Your task to perform on an android device: check data usage Image 0: 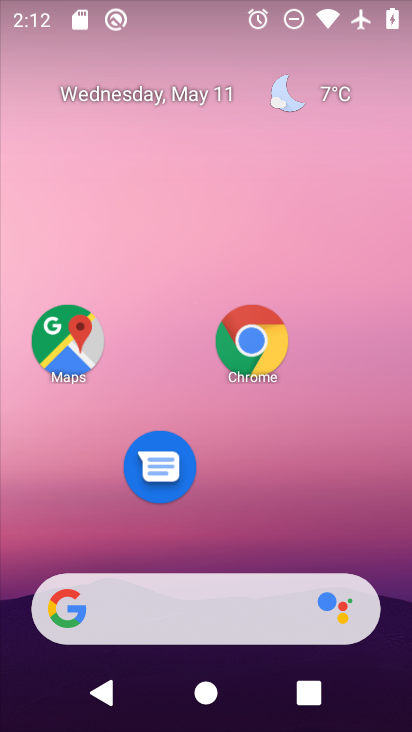
Step 0: drag from (161, 624) to (213, 132)
Your task to perform on an android device: check data usage Image 1: 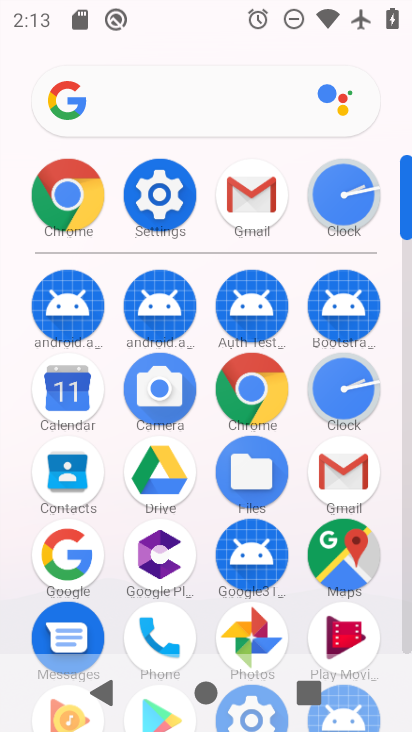
Step 1: click (162, 205)
Your task to perform on an android device: check data usage Image 2: 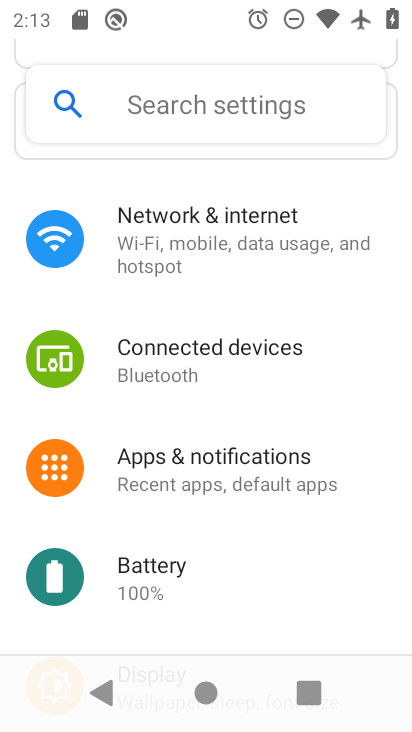
Step 2: click (196, 220)
Your task to perform on an android device: check data usage Image 3: 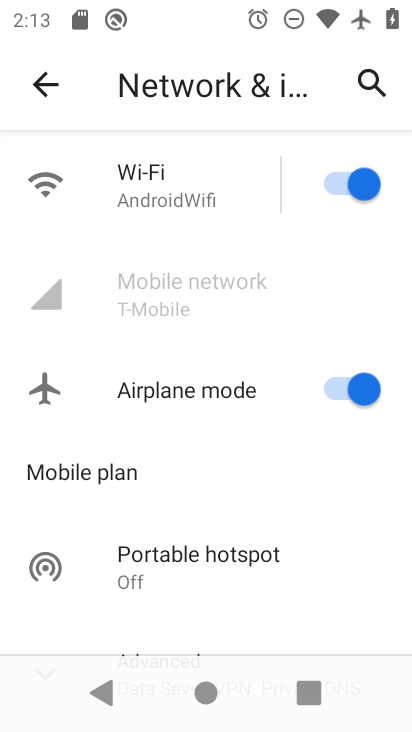
Step 3: click (166, 199)
Your task to perform on an android device: check data usage Image 4: 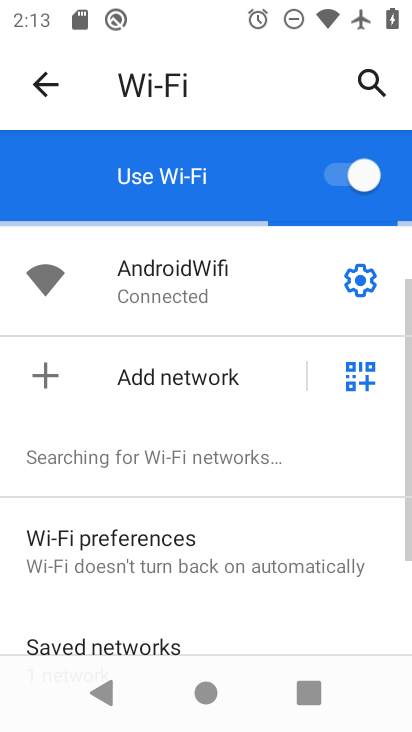
Step 4: drag from (146, 603) to (309, 87)
Your task to perform on an android device: check data usage Image 5: 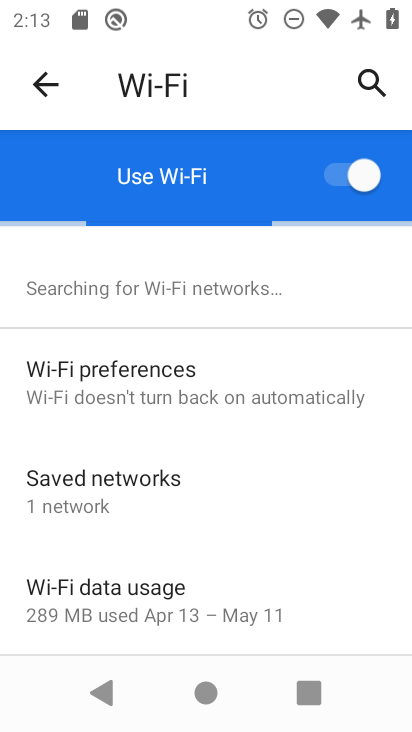
Step 5: click (141, 592)
Your task to perform on an android device: check data usage Image 6: 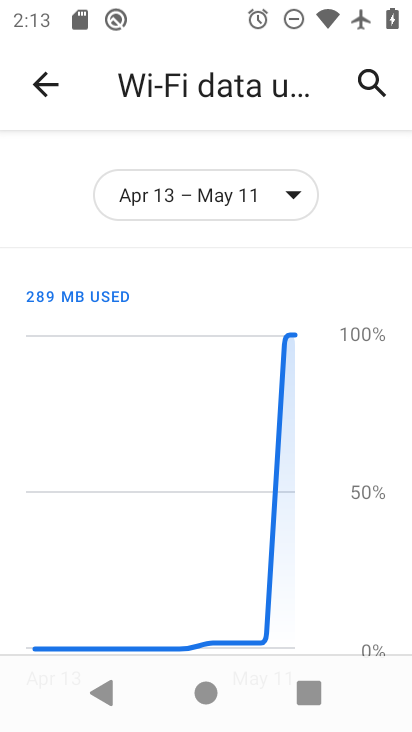
Step 6: task complete